Your task to perform on an android device: Show me popular games on the Play Store Image 0: 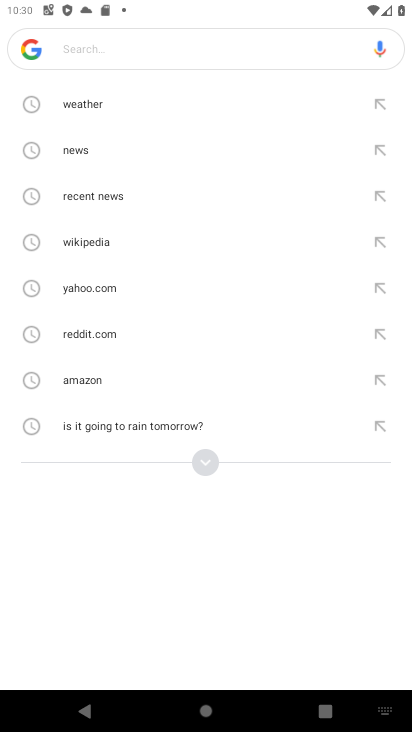
Step 0: press back button
Your task to perform on an android device: Show me popular games on the Play Store Image 1: 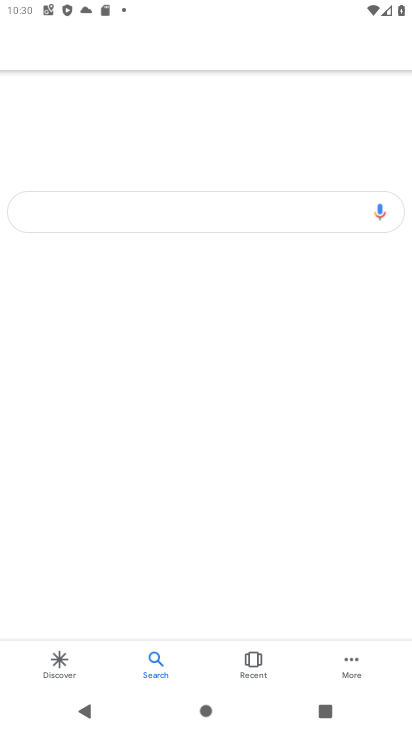
Step 1: press back button
Your task to perform on an android device: Show me popular games on the Play Store Image 2: 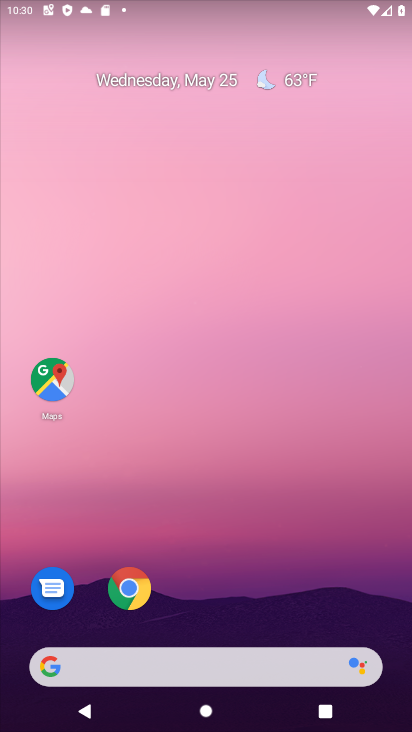
Step 2: drag from (303, 626) to (314, 4)
Your task to perform on an android device: Show me popular games on the Play Store Image 3: 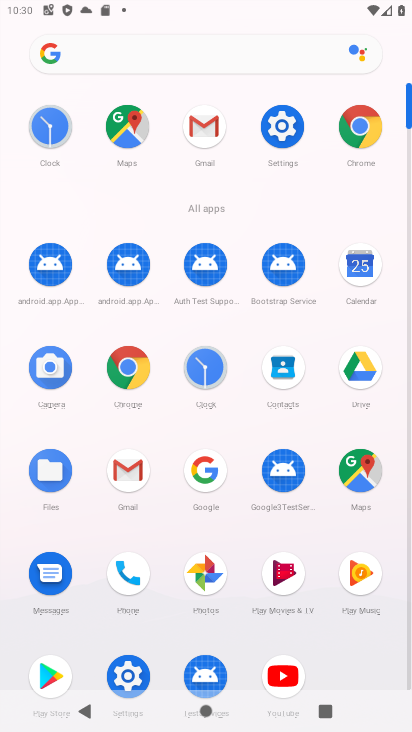
Step 3: click (57, 681)
Your task to perform on an android device: Show me popular games on the Play Store Image 4: 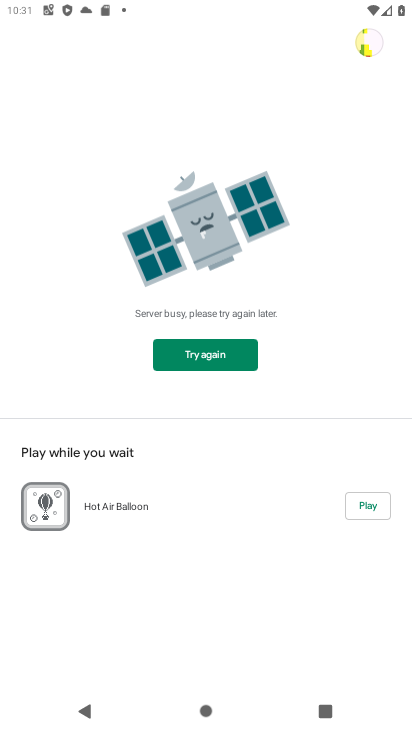
Step 4: click (220, 358)
Your task to perform on an android device: Show me popular games on the Play Store Image 5: 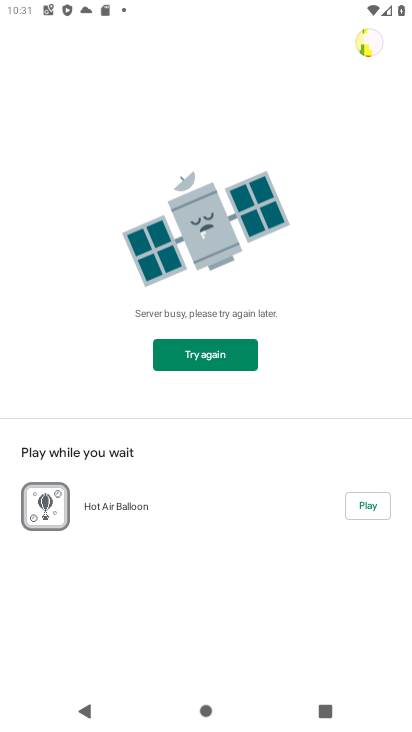
Step 5: click (219, 359)
Your task to perform on an android device: Show me popular games on the Play Store Image 6: 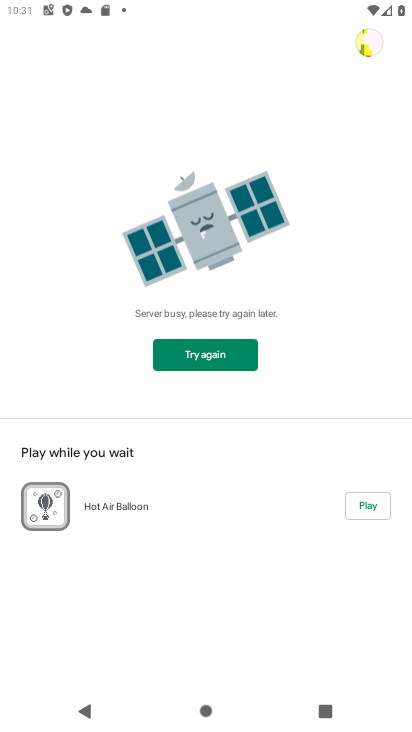
Step 6: task complete